Your task to perform on an android device: turn on the 12-hour format for clock Image 0: 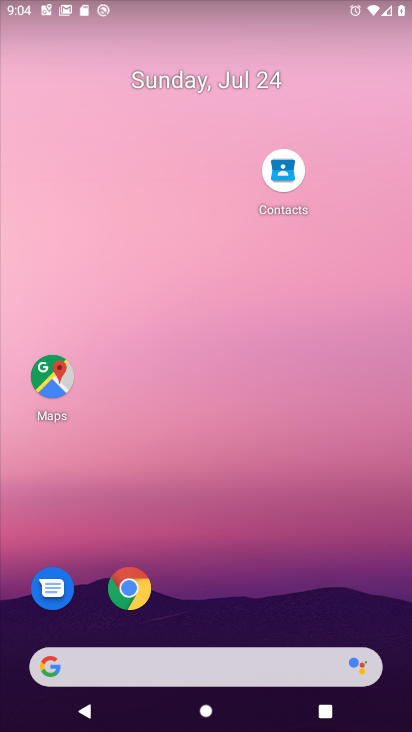
Step 0: drag from (207, 627) to (202, 91)
Your task to perform on an android device: turn on the 12-hour format for clock Image 1: 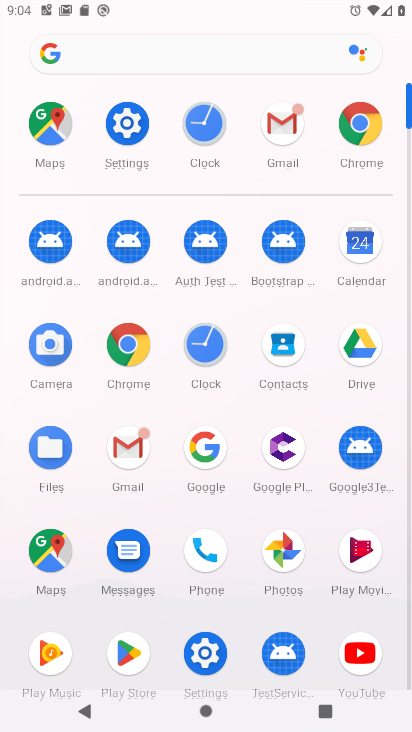
Step 1: click (203, 114)
Your task to perform on an android device: turn on the 12-hour format for clock Image 2: 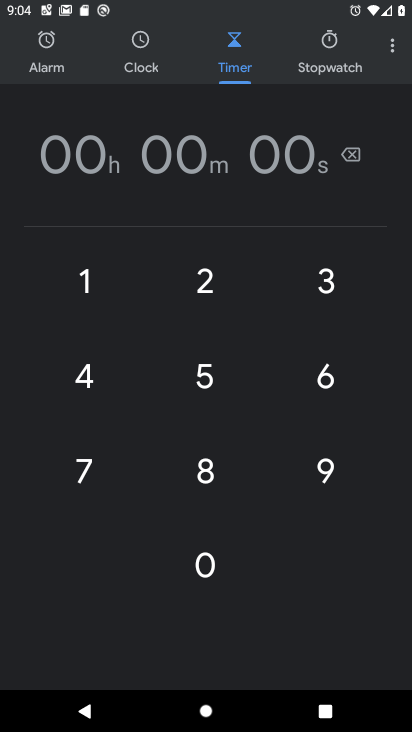
Step 2: click (390, 45)
Your task to perform on an android device: turn on the 12-hour format for clock Image 3: 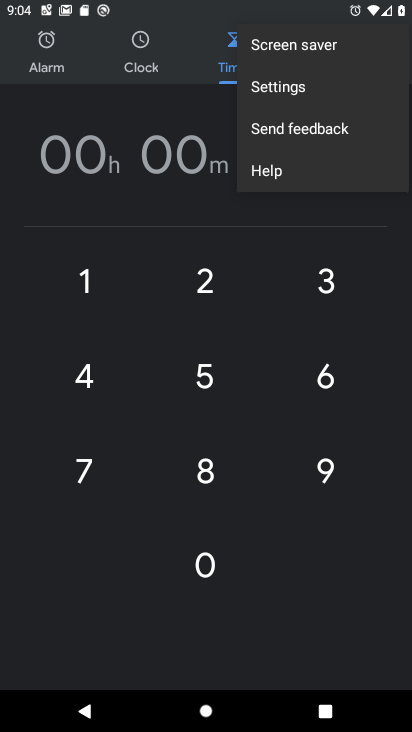
Step 3: click (310, 87)
Your task to perform on an android device: turn on the 12-hour format for clock Image 4: 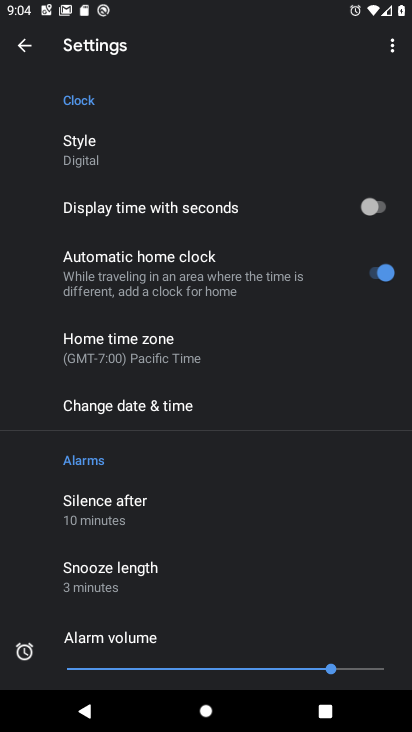
Step 4: click (209, 405)
Your task to perform on an android device: turn on the 12-hour format for clock Image 5: 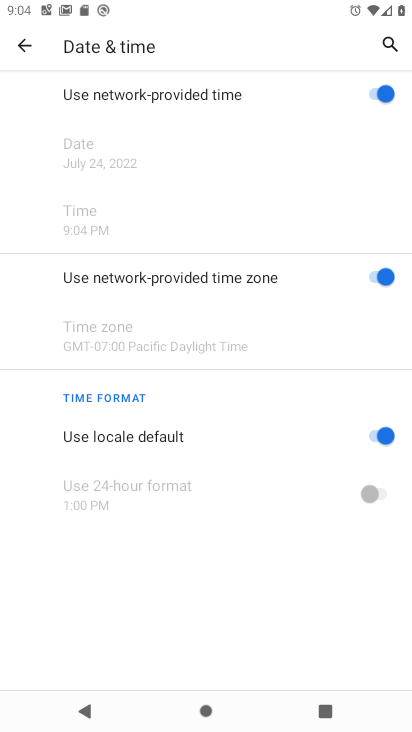
Step 5: task complete